Your task to perform on an android device: Open privacy settings Image 0: 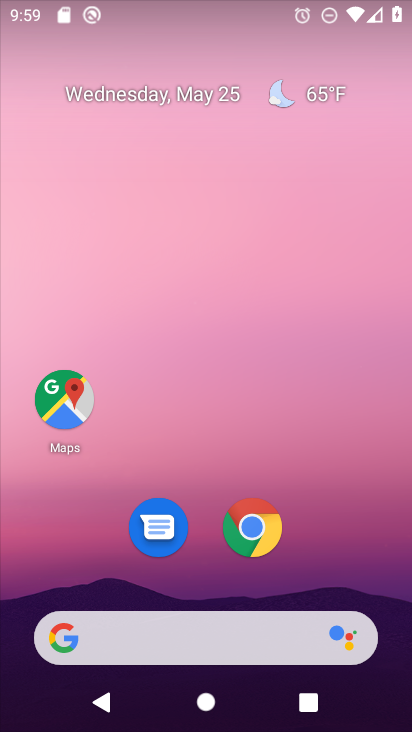
Step 0: drag from (319, 576) to (270, 124)
Your task to perform on an android device: Open privacy settings Image 1: 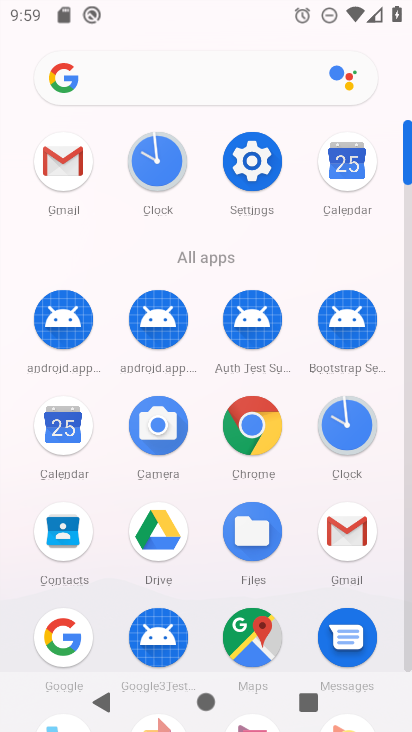
Step 1: click (253, 162)
Your task to perform on an android device: Open privacy settings Image 2: 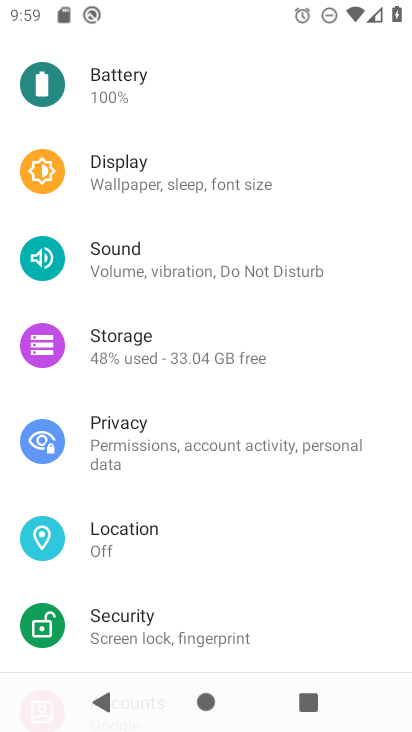
Step 2: click (156, 453)
Your task to perform on an android device: Open privacy settings Image 3: 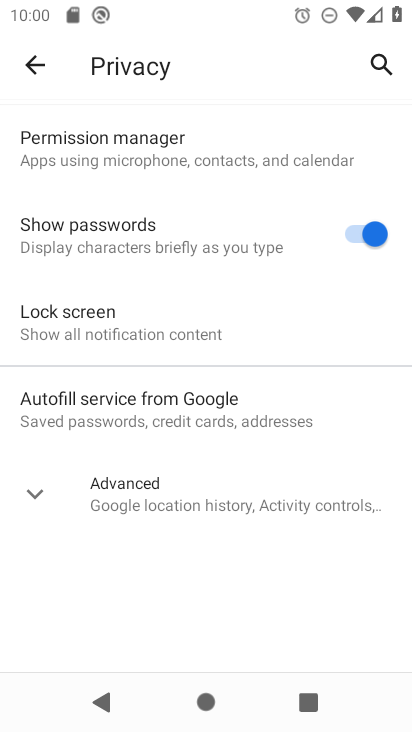
Step 3: task complete